Your task to perform on an android device: Add logitech g910 to the cart on newegg, then select checkout. Image 0: 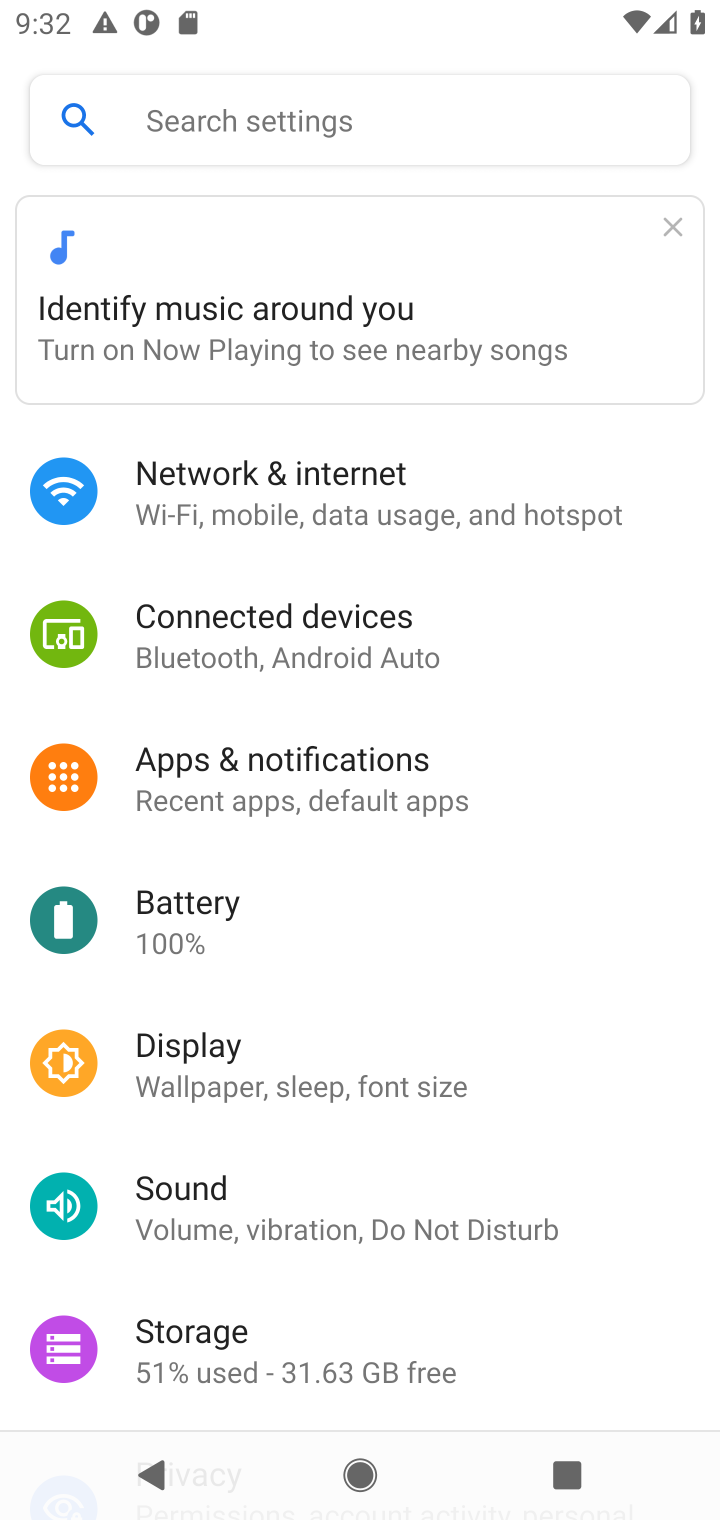
Step 0: press home button
Your task to perform on an android device: Add logitech g910 to the cart on newegg, then select checkout. Image 1: 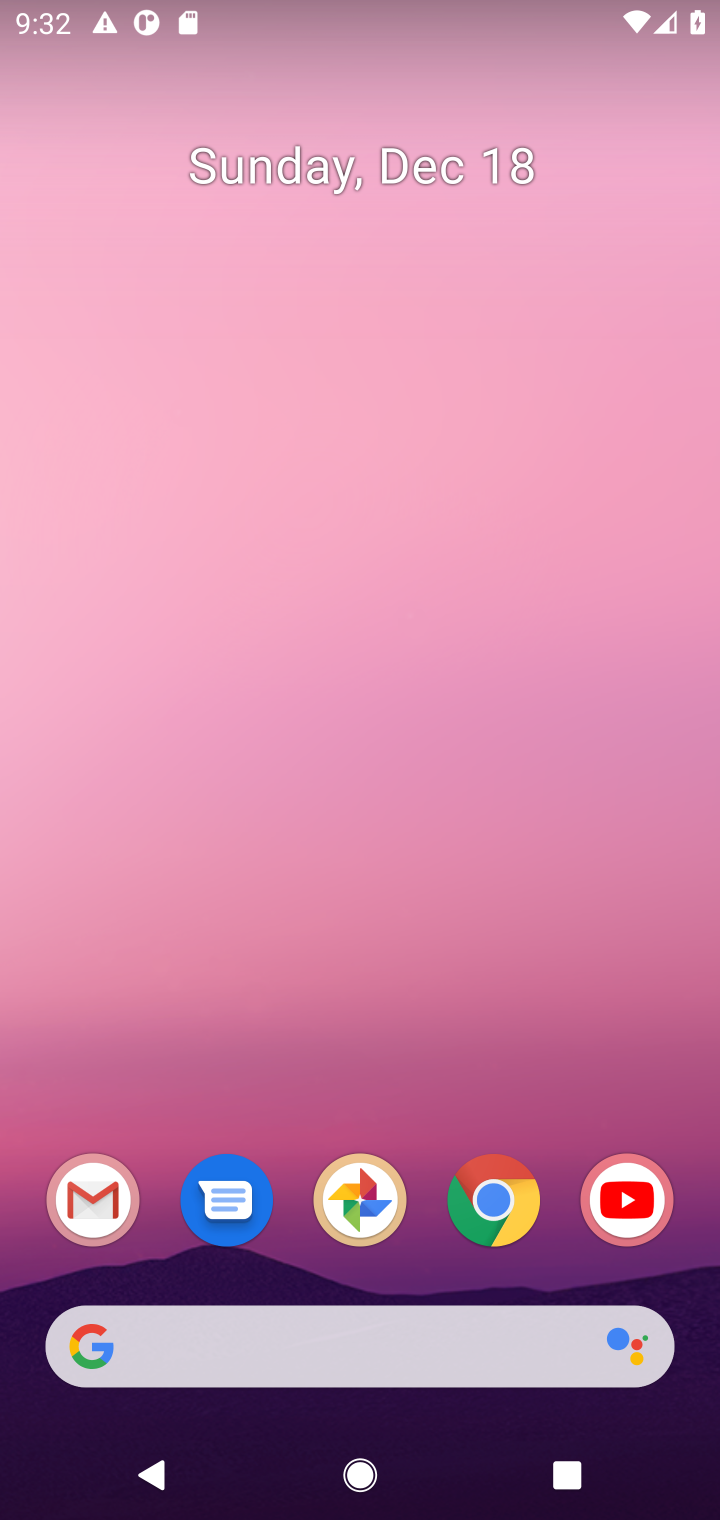
Step 1: click (499, 1216)
Your task to perform on an android device: Add logitech g910 to the cart on newegg, then select checkout. Image 2: 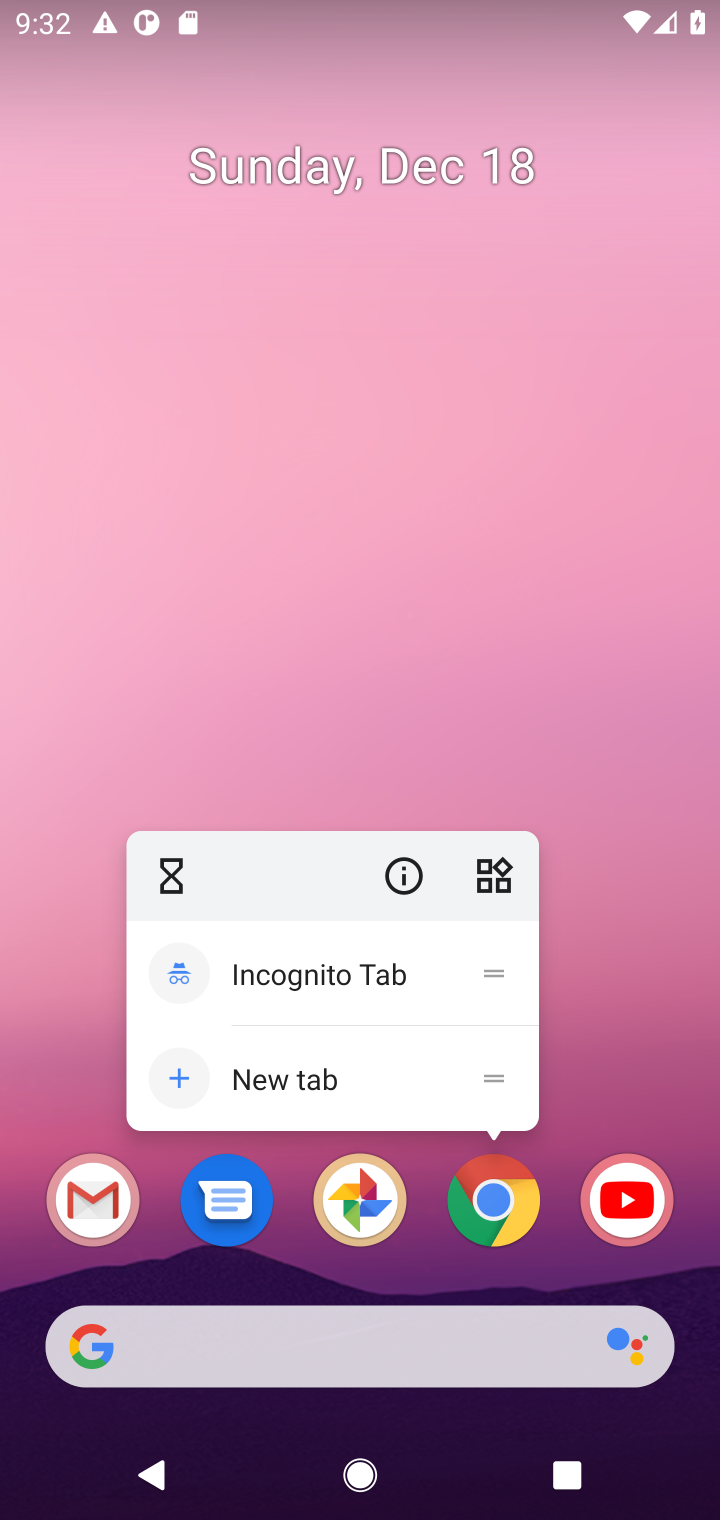
Step 2: click (499, 1216)
Your task to perform on an android device: Add logitech g910 to the cart on newegg, then select checkout. Image 3: 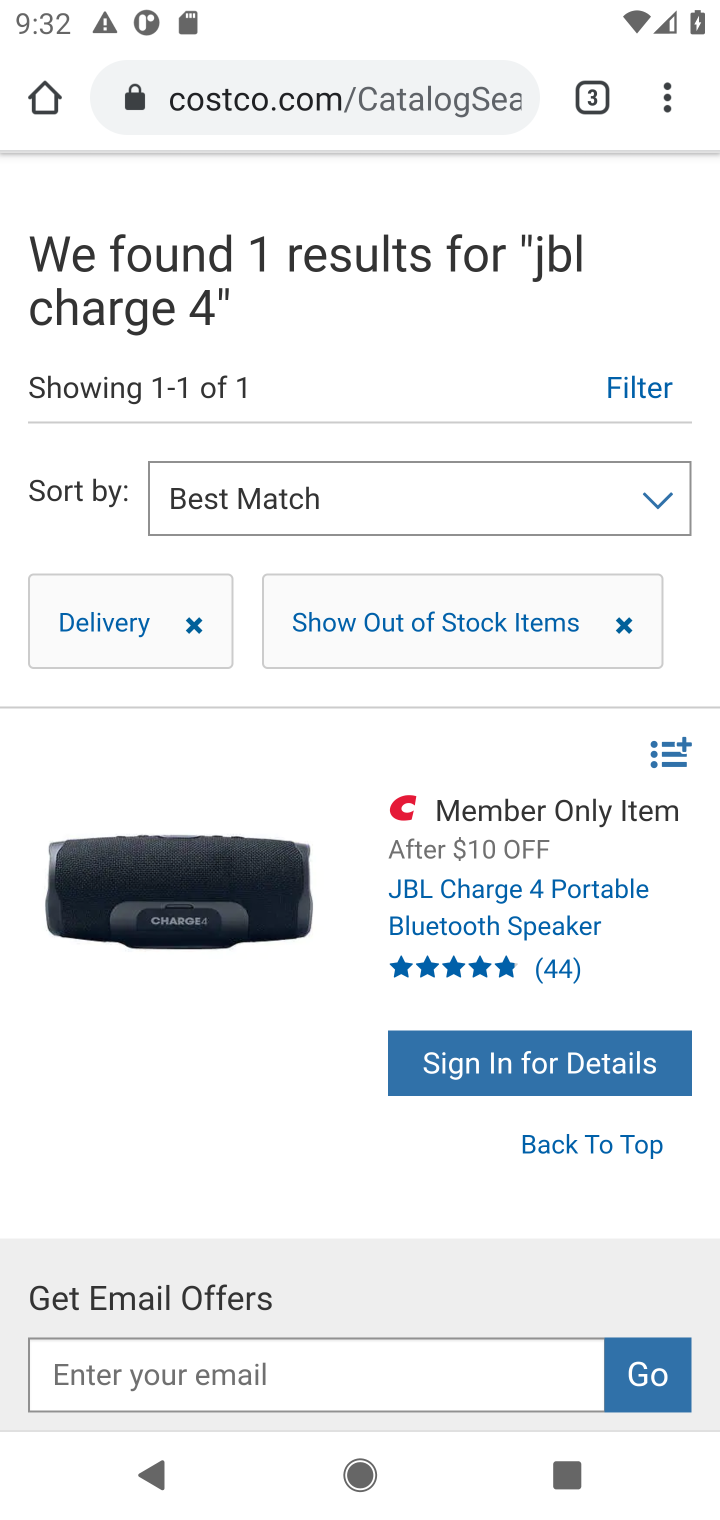
Step 3: click (251, 91)
Your task to perform on an android device: Add logitech g910 to the cart on newegg, then select checkout. Image 4: 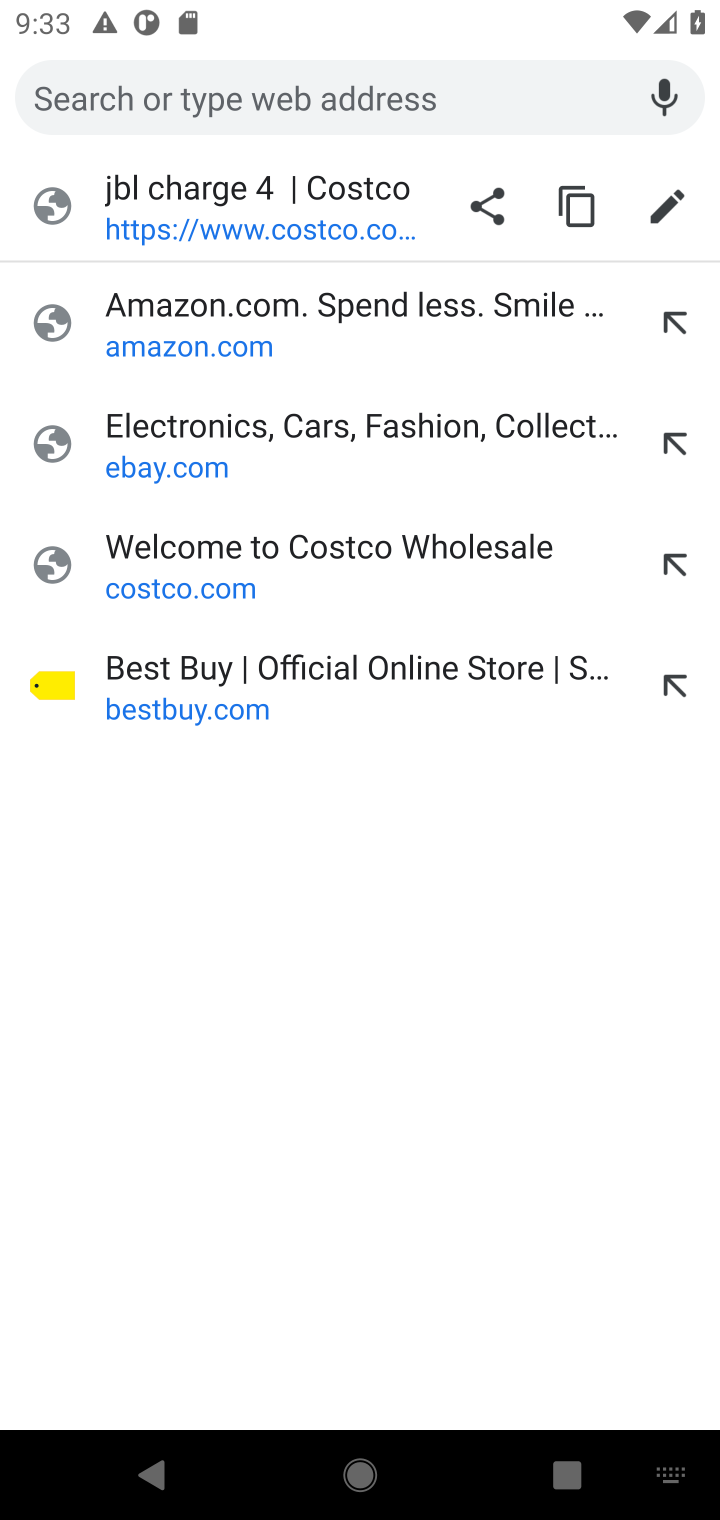
Step 4: type "newegg.com"
Your task to perform on an android device: Add logitech g910 to the cart on newegg, then select checkout. Image 5: 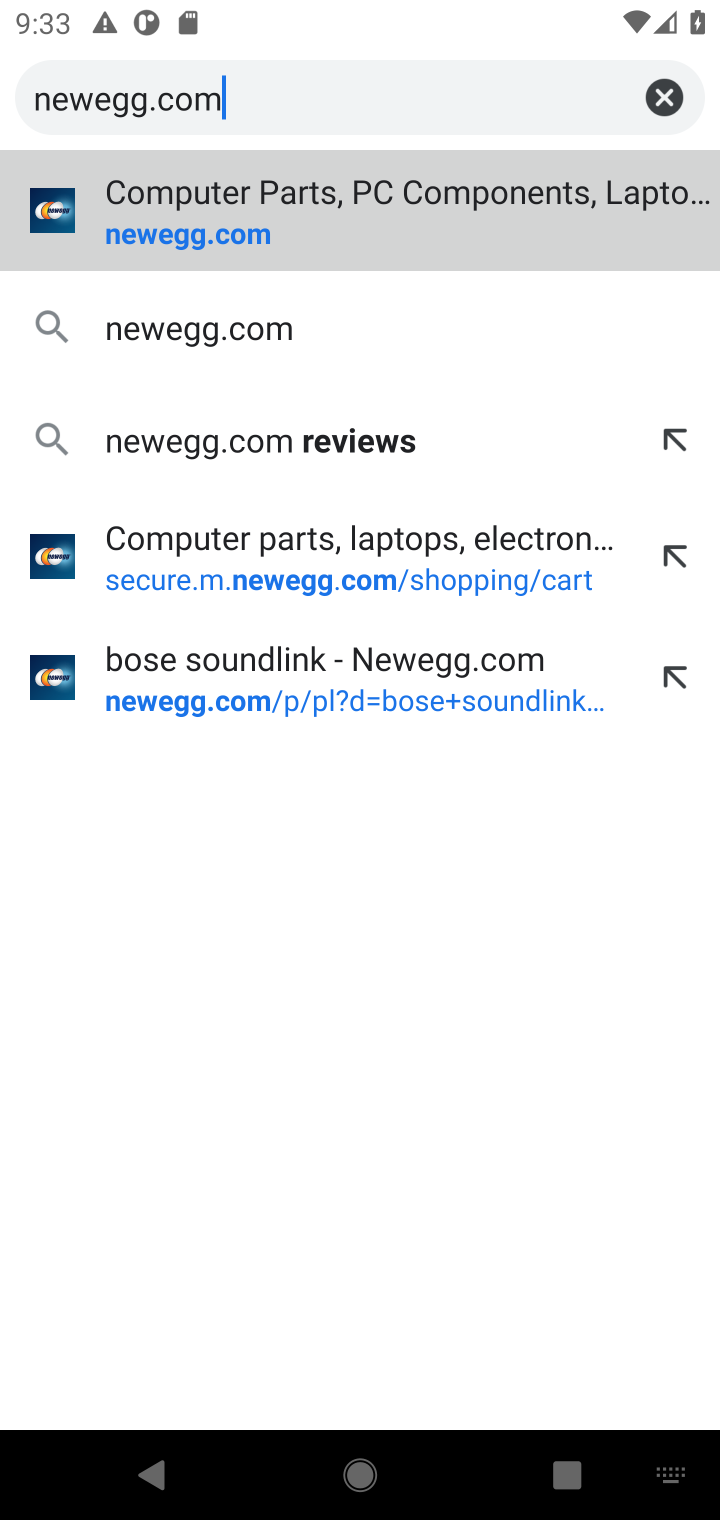
Step 5: click (149, 230)
Your task to perform on an android device: Add logitech g910 to the cart on newegg, then select checkout. Image 6: 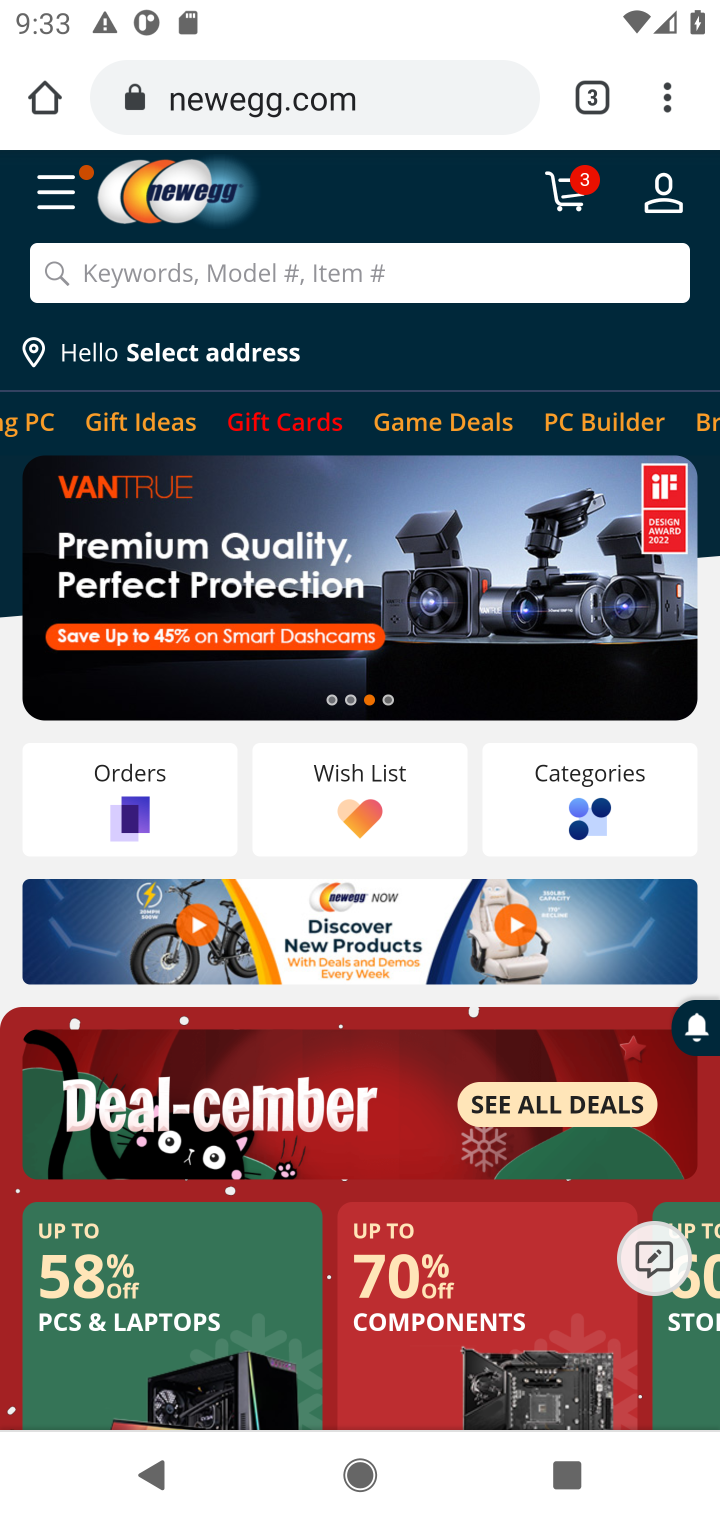
Step 6: click (116, 278)
Your task to perform on an android device: Add logitech g910 to the cart on newegg, then select checkout. Image 7: 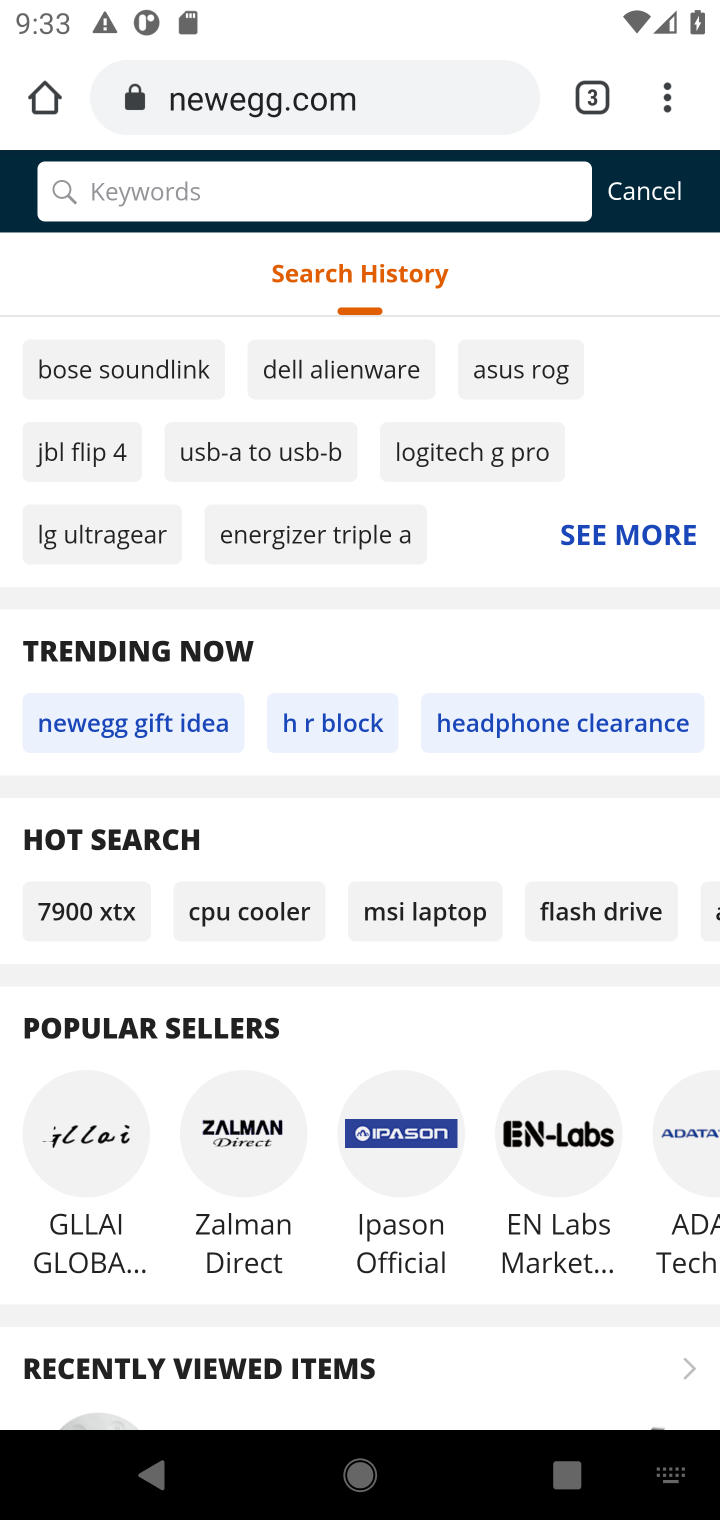
Step 7: type " logitech g910"
Your task to perform on an android device: Add logitech g910 to the cart on newegg, then select checkout. Image 8: 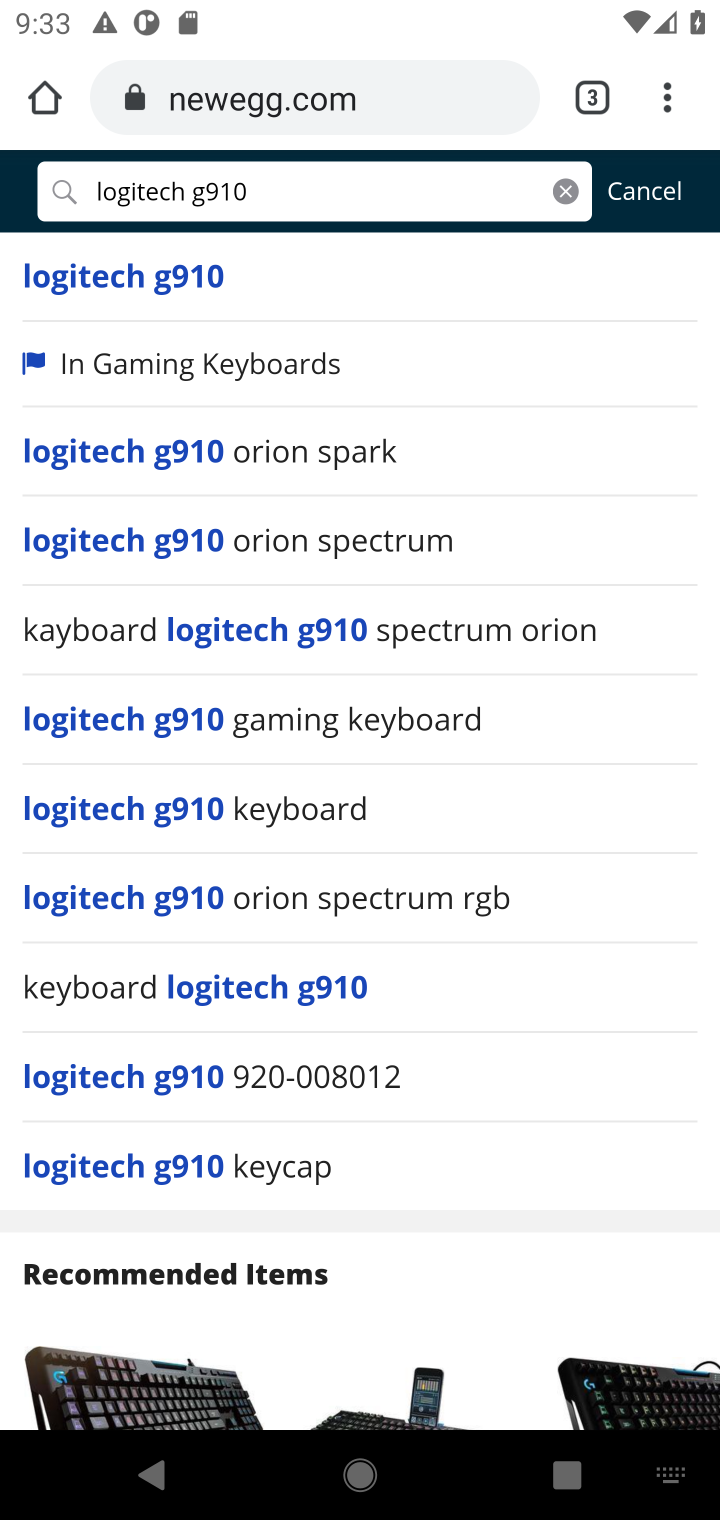
Step 8: click (143, 286)
Your task to perform on an android device: Add logitech g910 to the cart on newegg, then select checkout. Image 9: 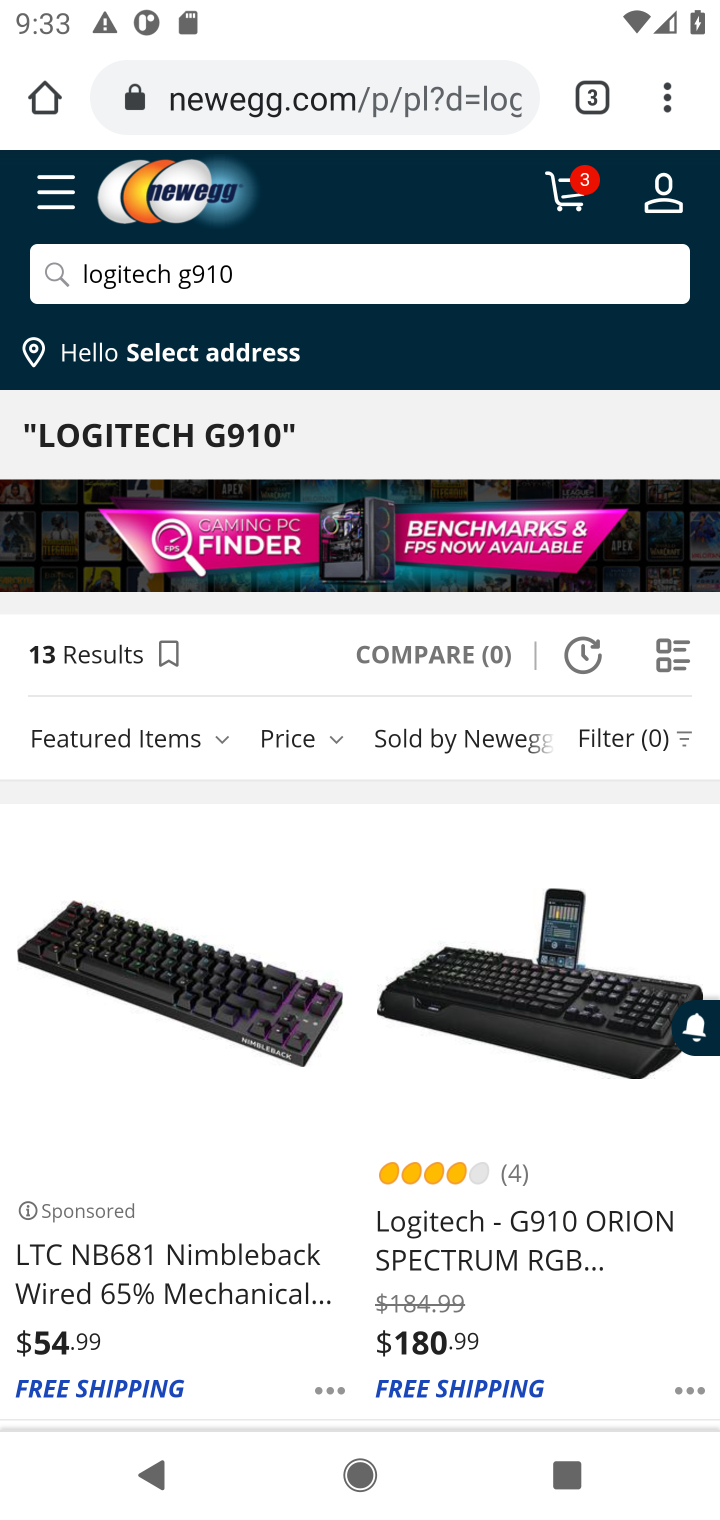
Step 9: drag from (271, 1113) to (253, 707)
Your task to perform on an android device: Add logitech g910 to the cart on newegg, then select checkout. Image 10: 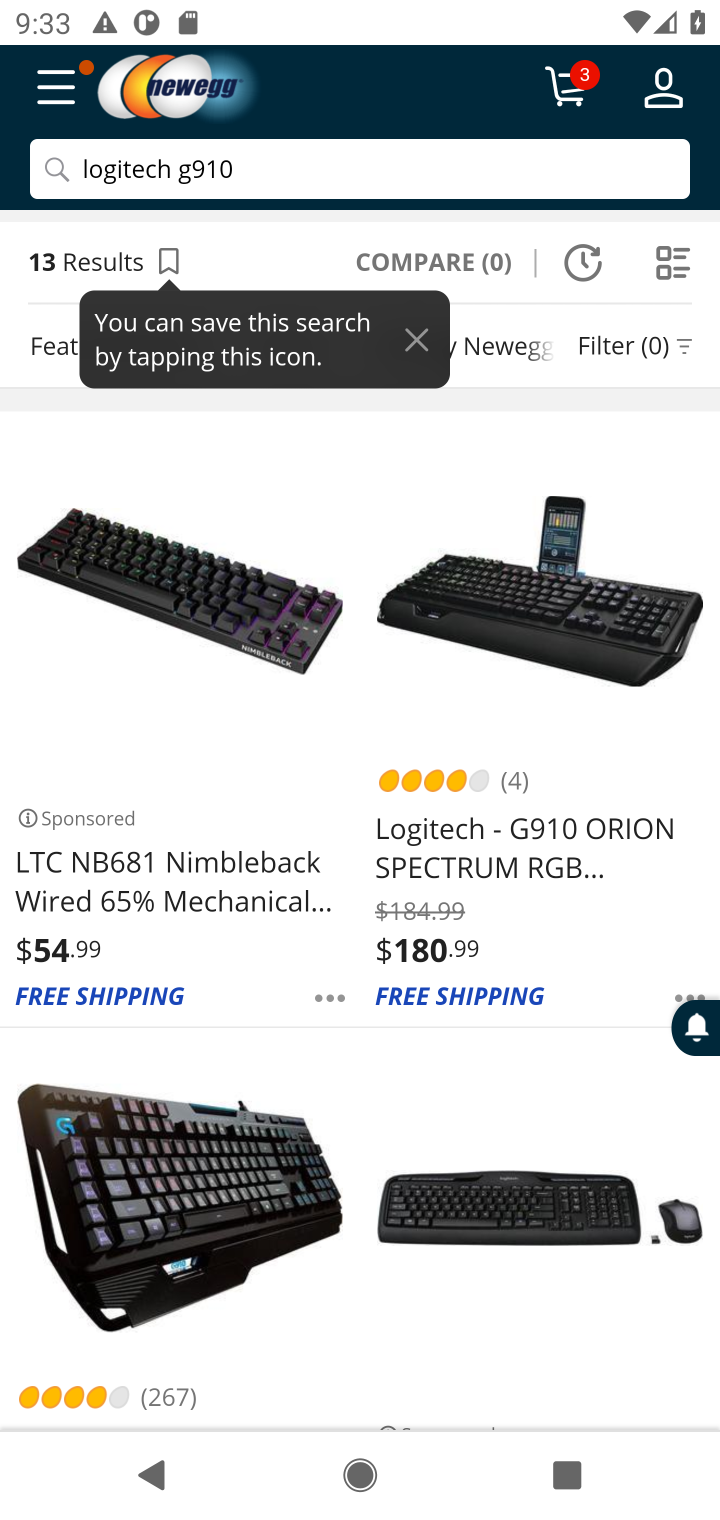
Step 10: click (502, 865)
Your task to perform on an android device: Add logitech g910 to the cart on newegg, then select checkout. Image 11: 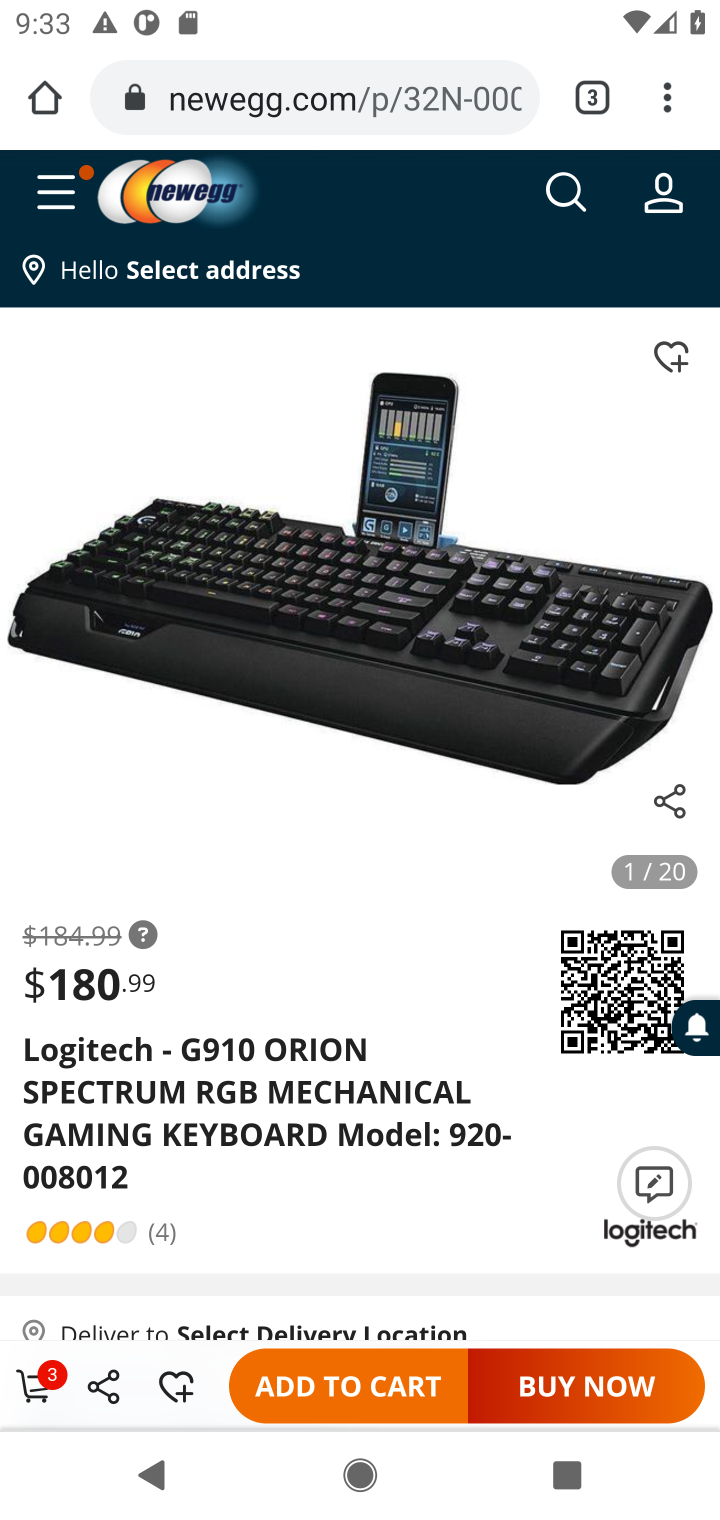
Step 11: click (367, 1379)
Your task to perform on an android device: Add logitech g910 to the cart on newegg, then select checkout. Image 12: 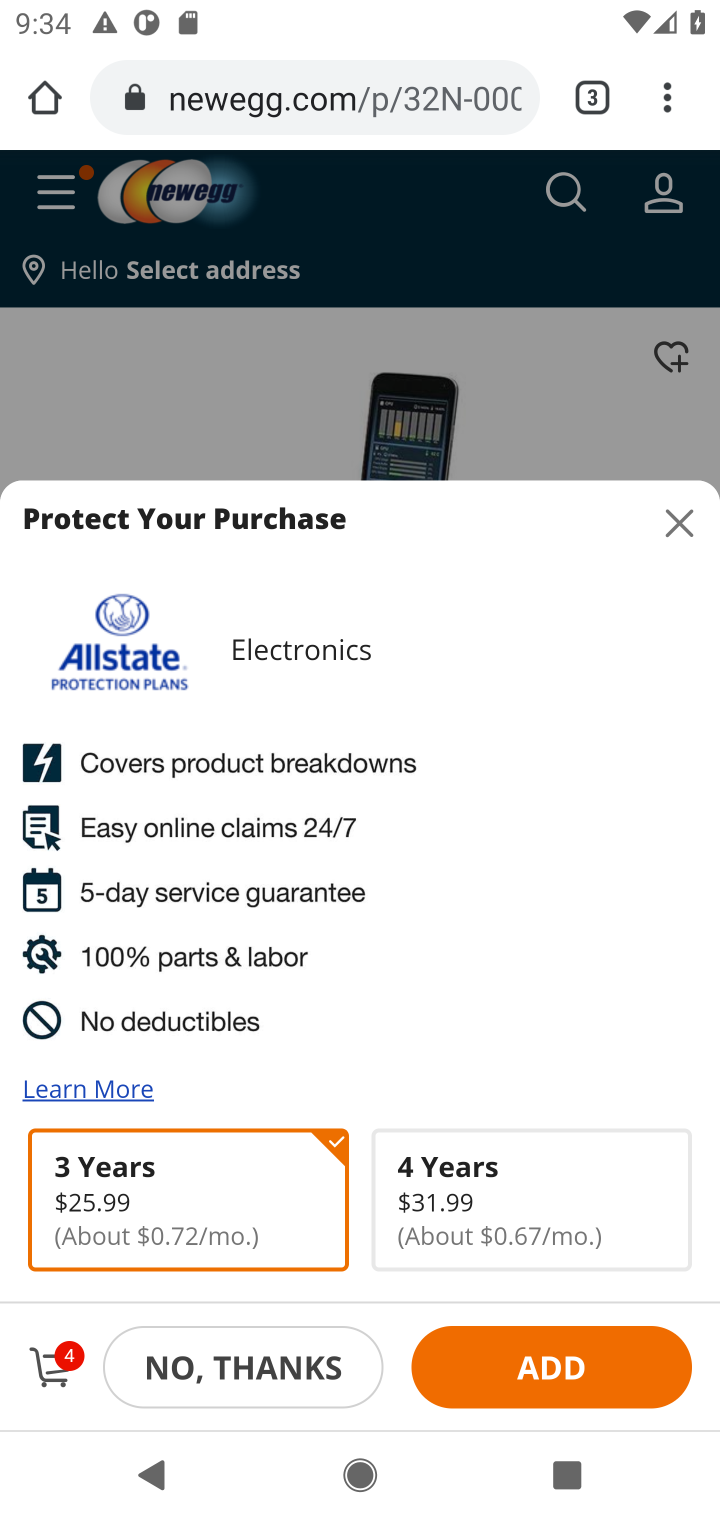
Step 12: click (59, 1369)
Your task to perform on an android device: Add logitech g910 to the cart on newegg, then select checkout. Image 13: 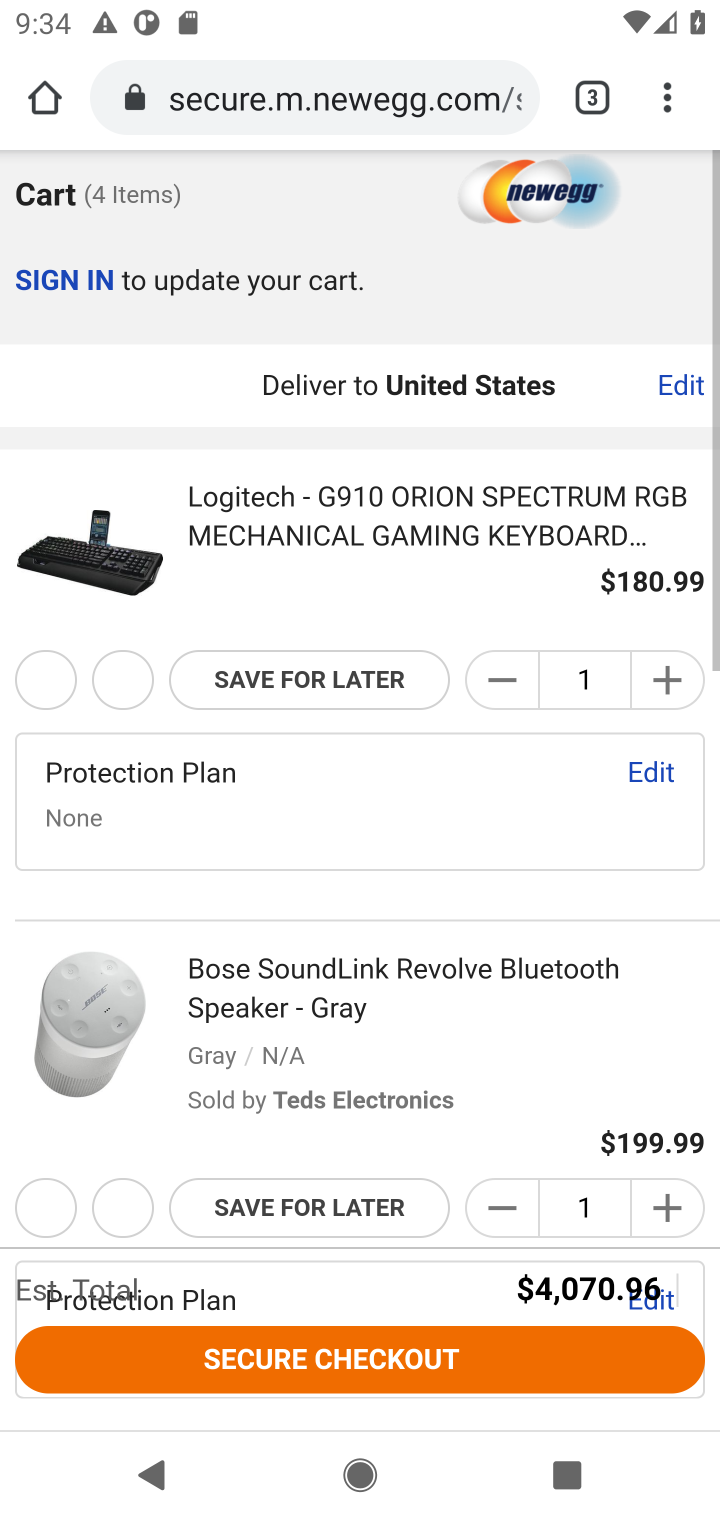
Step 13: click (257, 1356)
Your task to perform on an android device: Add logitech g910 to the cart on newegg, then select checkout. Image 14: 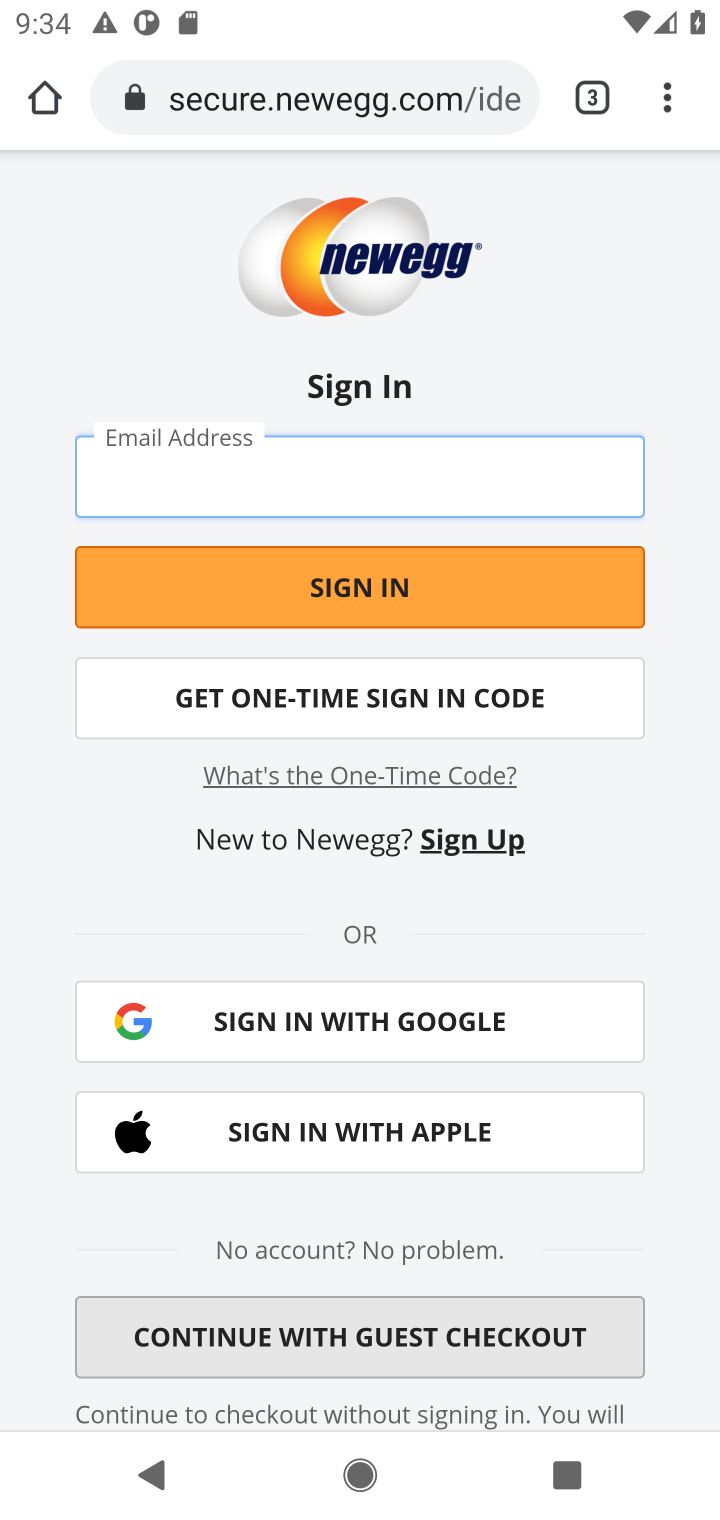
Step 14: task complete